Your task to perform on an android device: Open notification settings Image 0: 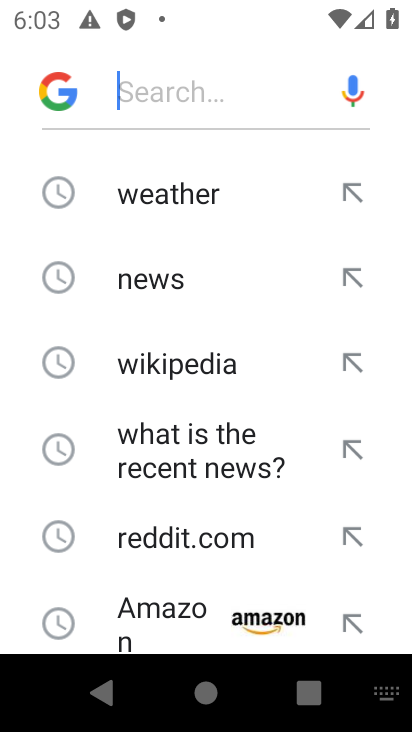
Step 0: press home button
Your task to perform on an android device: Open notification settings Image 1: 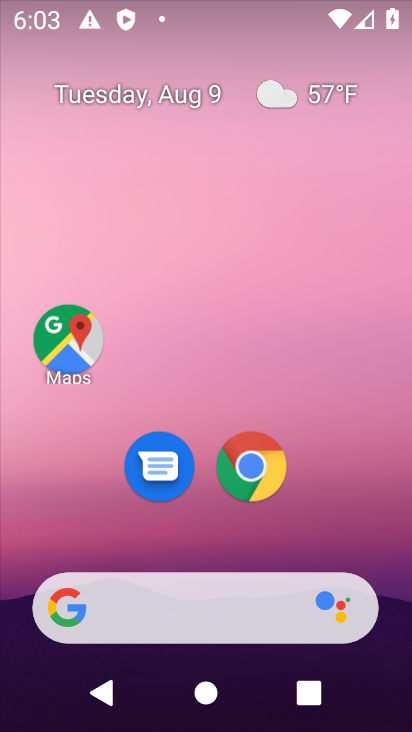
Step 1: drag from (218, 521) to (218, 54)
Your task to perform on an android device: Open notification settings Image 2: 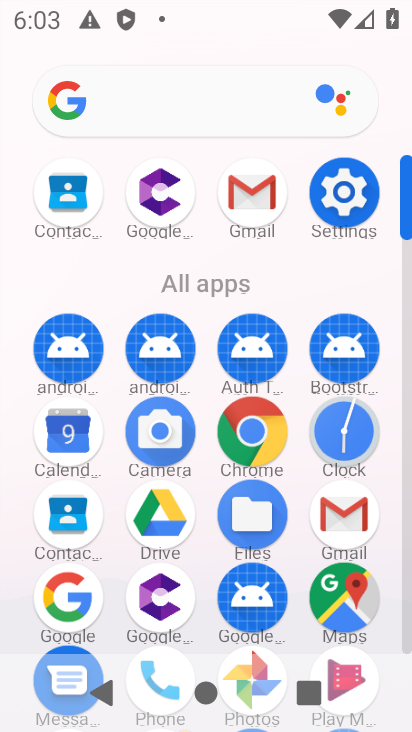
Step 2: click (339, 195)
Your task to perform on an android device: Open notification settings Image 3: 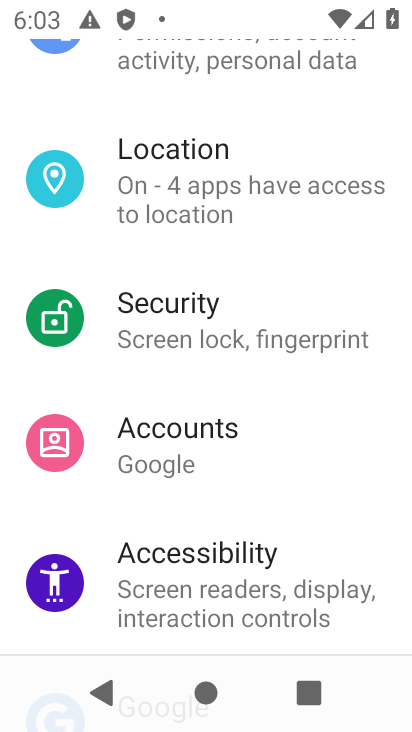
Step 3: drag from (250, 282) to (235, 718)
Your task to perform on an android device: Open notification settings Image 4: 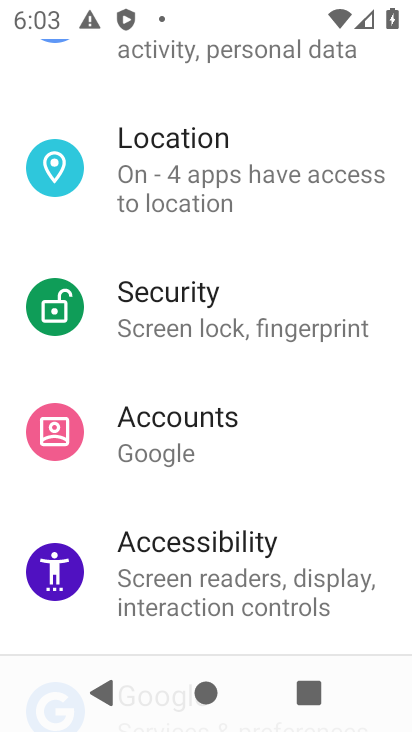
Step 4: drag from (234, 194) to (226, 502)
Your task to perform on an android device: Open notification settings Image 5: 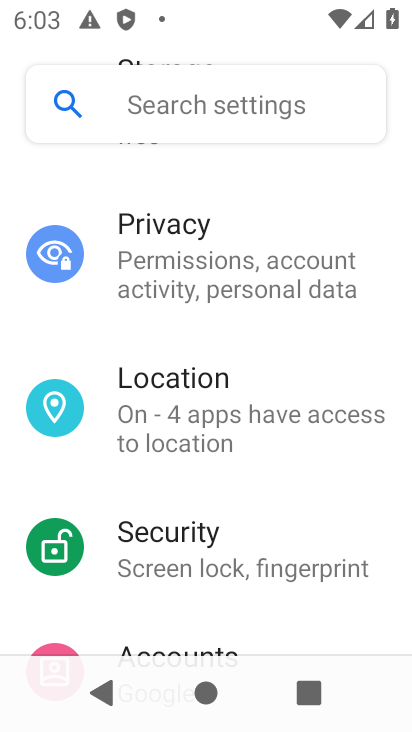
Step 5: drag from (232, 203) to (240, 617)
Your task to perform on an android device: Open notification settings Image 6: 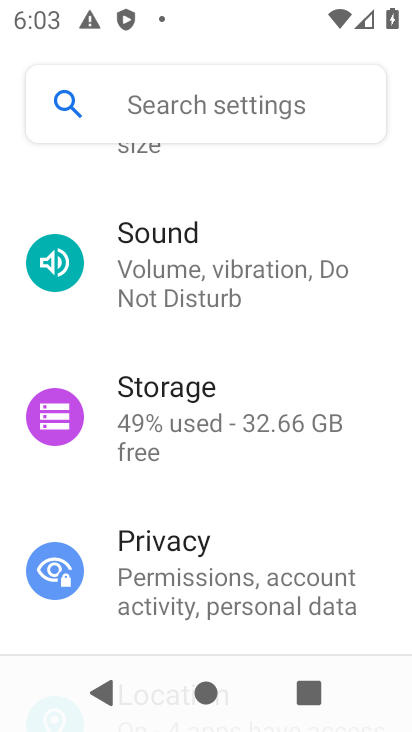
Step 6: drag from (243, 301) to (239, 566)
Your task to perform on an android device: Open notification settings Image 7: 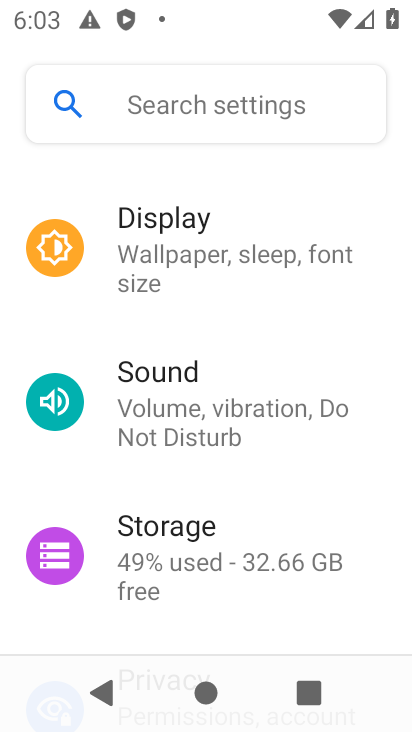
Step 7: drag from (214, 205) to (161, 667)
Your task to perform on an android device: Open notification settings Image 8: 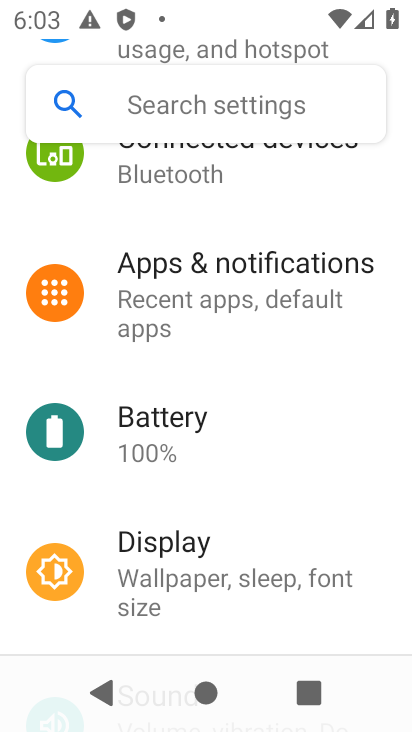
Step 8: click (241, 290)
Your task to perform on an android device: Open notification settings Image 9: 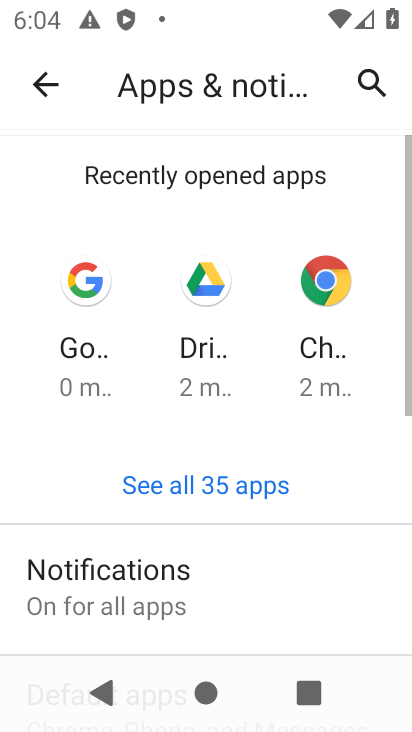
Step 9: task complete